Your task to perform on an android device: When is my next meeting? Image 0: 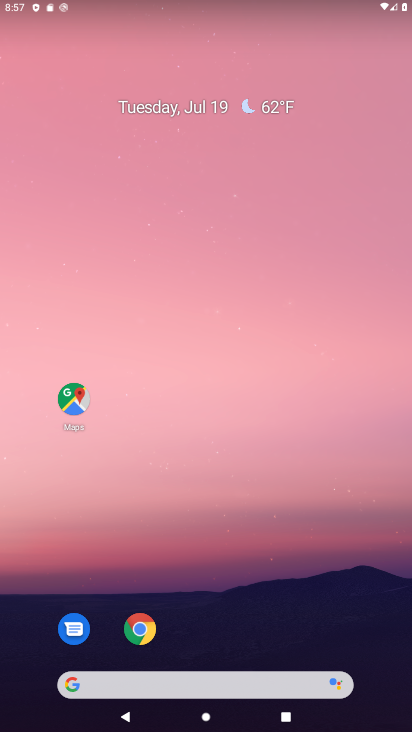
Step 0: press home button
Your task to perform on an android device: When is my next meeting? Image 1: 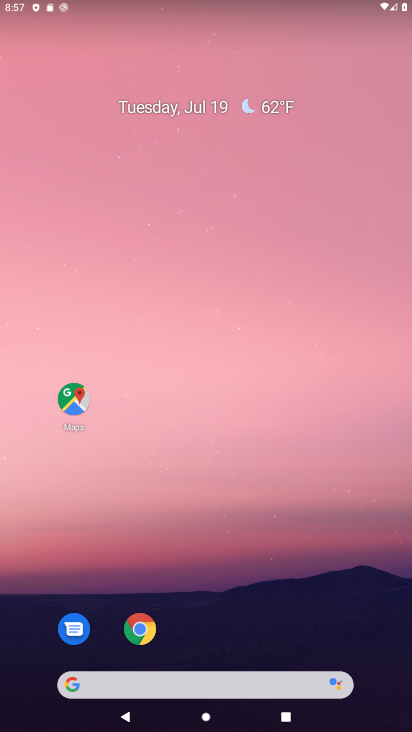
Step 1: drag from (210, 642) to (209, 56)
Your task to perform on an android device: When is my next meeting? Image 2: 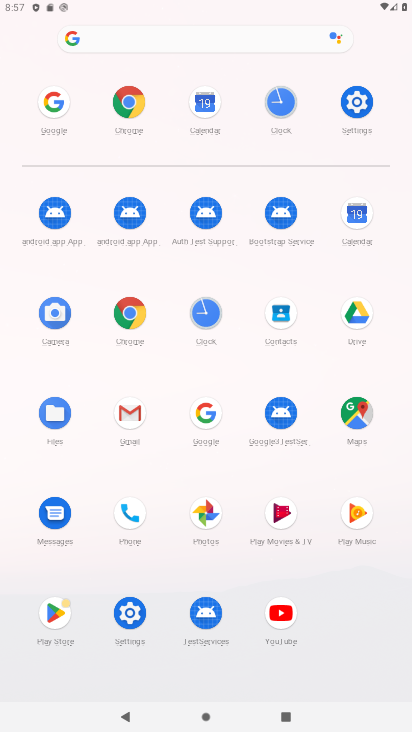
Step 2: click (354, 210)
Your task to perform on an android device: When is my next meeting? Image 3: 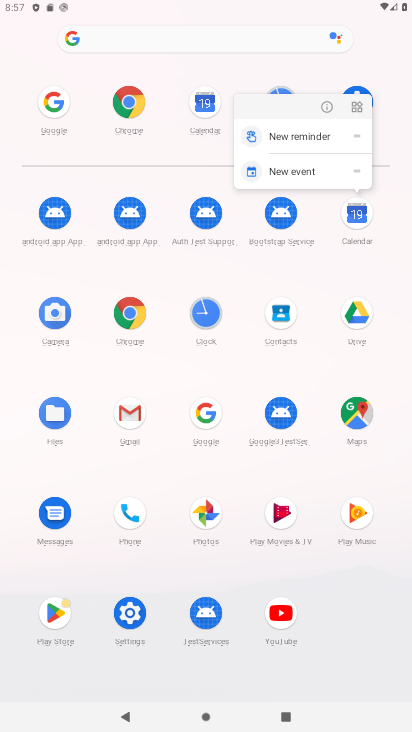
Step 3: click (354, 210)
Your task to perform on an android device: When is my next meeting? Image 4: 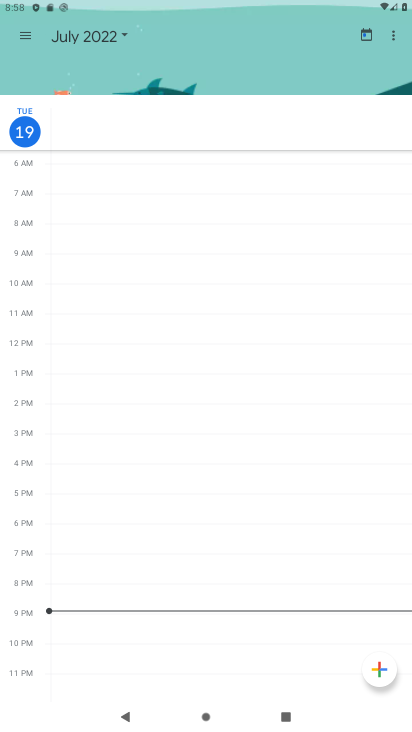
Step 4: click (25, 140)
Your task to perform on an android device: When is my next meeting? Image 5: 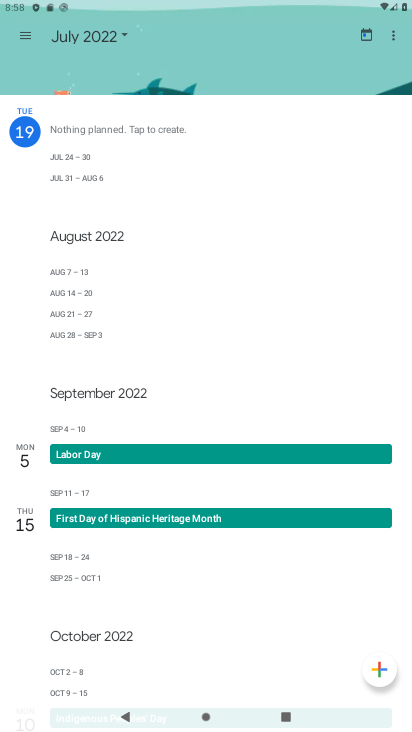
Step 5: task complete